Your task to perform on an android device: change the clock display to show seconds Image 0: 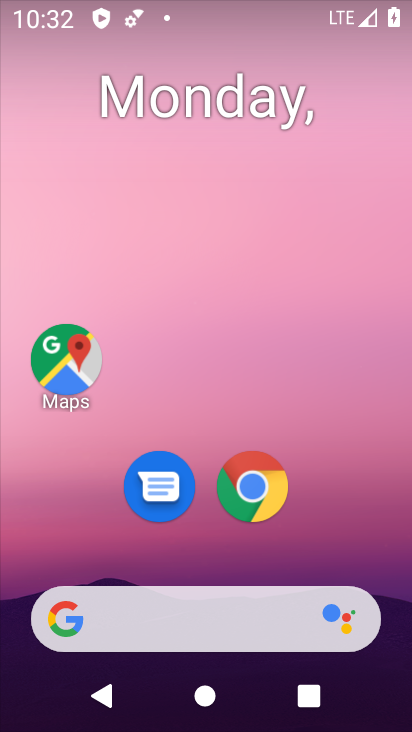
Step 0: drag from (82, 555) to (355, 142)
Your task to perform on an android device: change the clock display to show seconds Image 1: 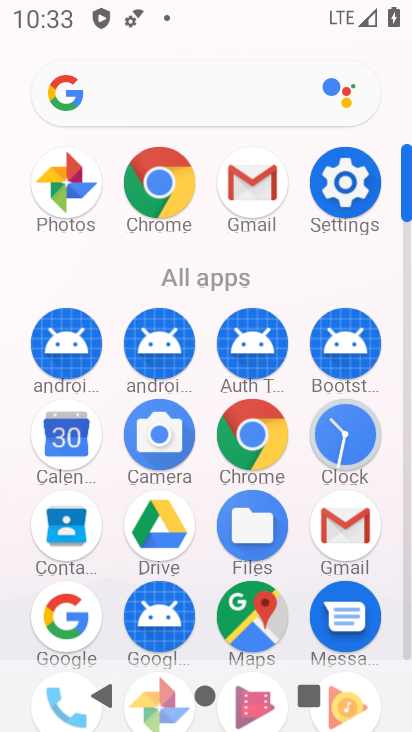
Step 1: click (354, 441)
Your task to perform on an android device: change the clock display to show seconds Image 2: 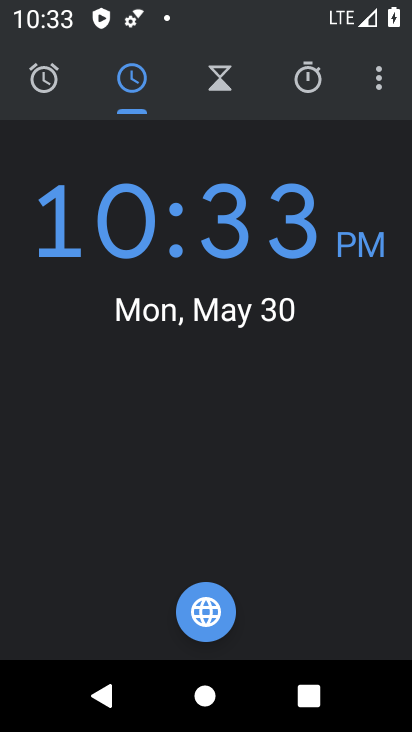
Step 2: click (379, 78)
Your task to perform on an android device: change the clock display to show seconds Image 3: 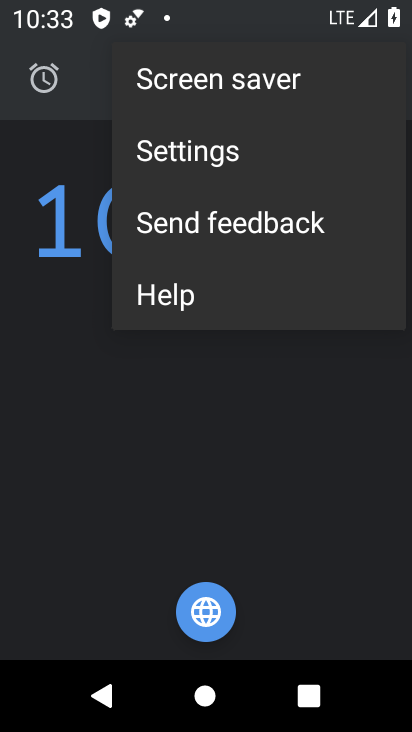
Step 3: click (208, 153)
Your task to perform on an android device: change the clock display to show seconds Image 4: 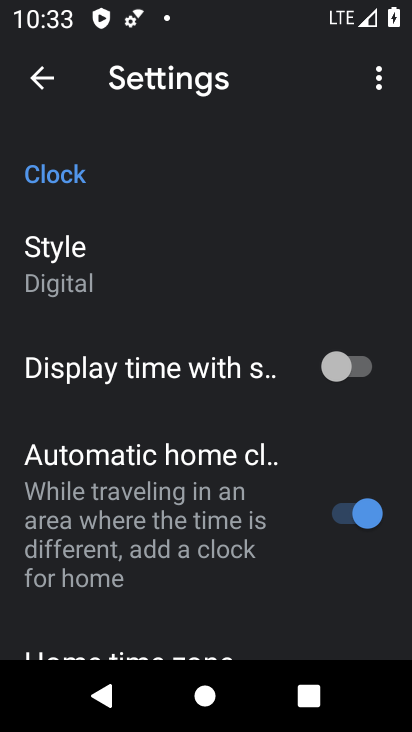
Step 4: click (327, 373)
Your task to perform on an android device: change the clock display to show seconds Image 5: 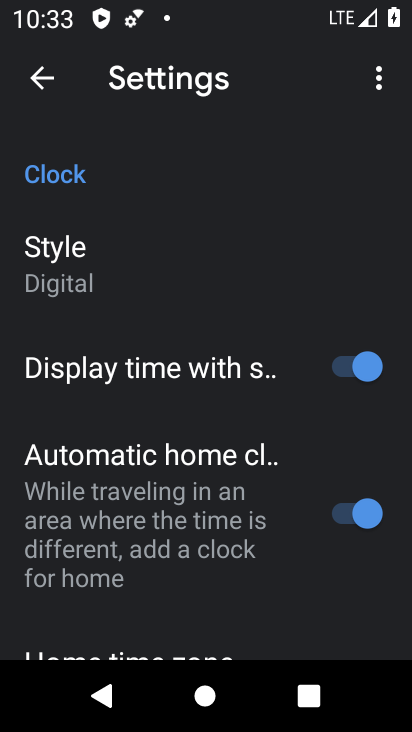
Step 5: task complete